Your task to perform on an android device: check battery use Image 0: 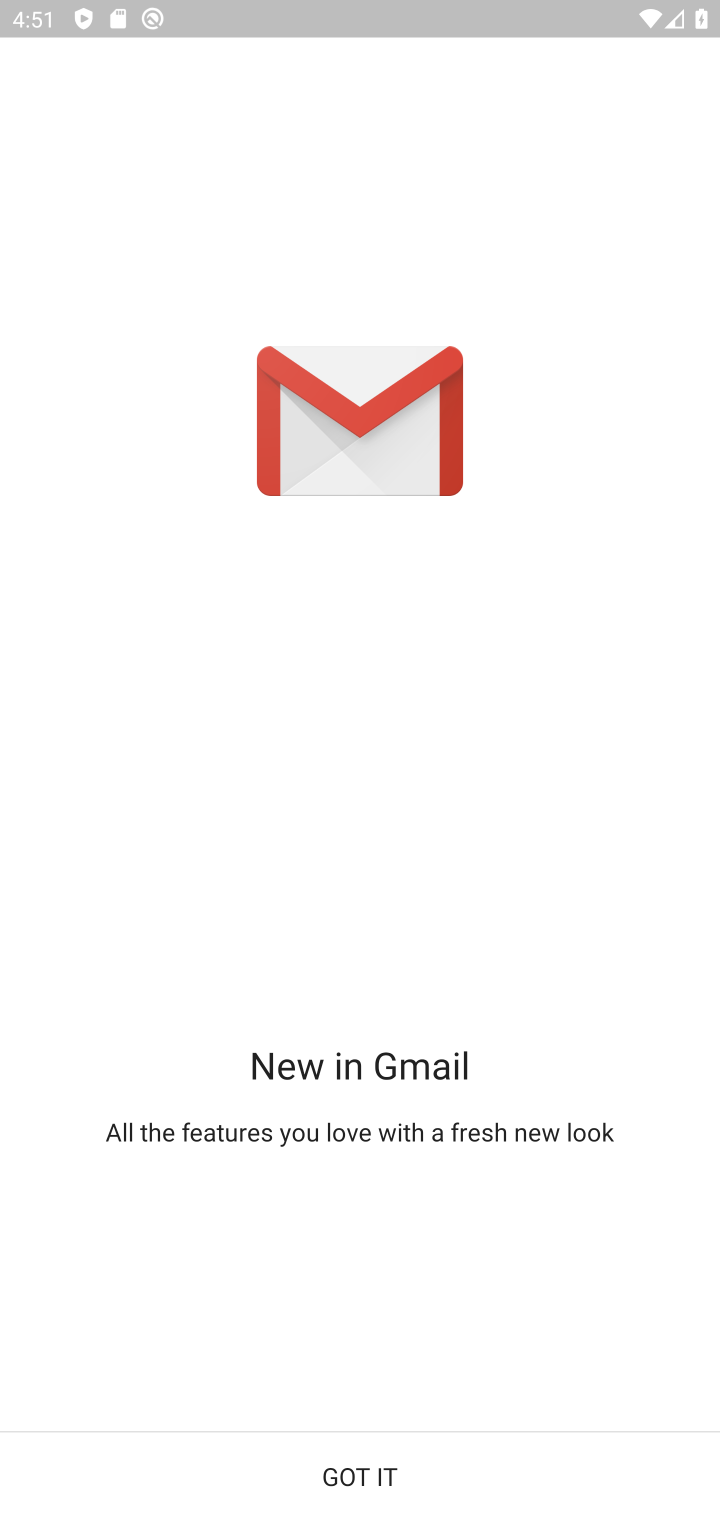
Step 0: press back button
Your task to perform on an android device: check battery use Image 1: 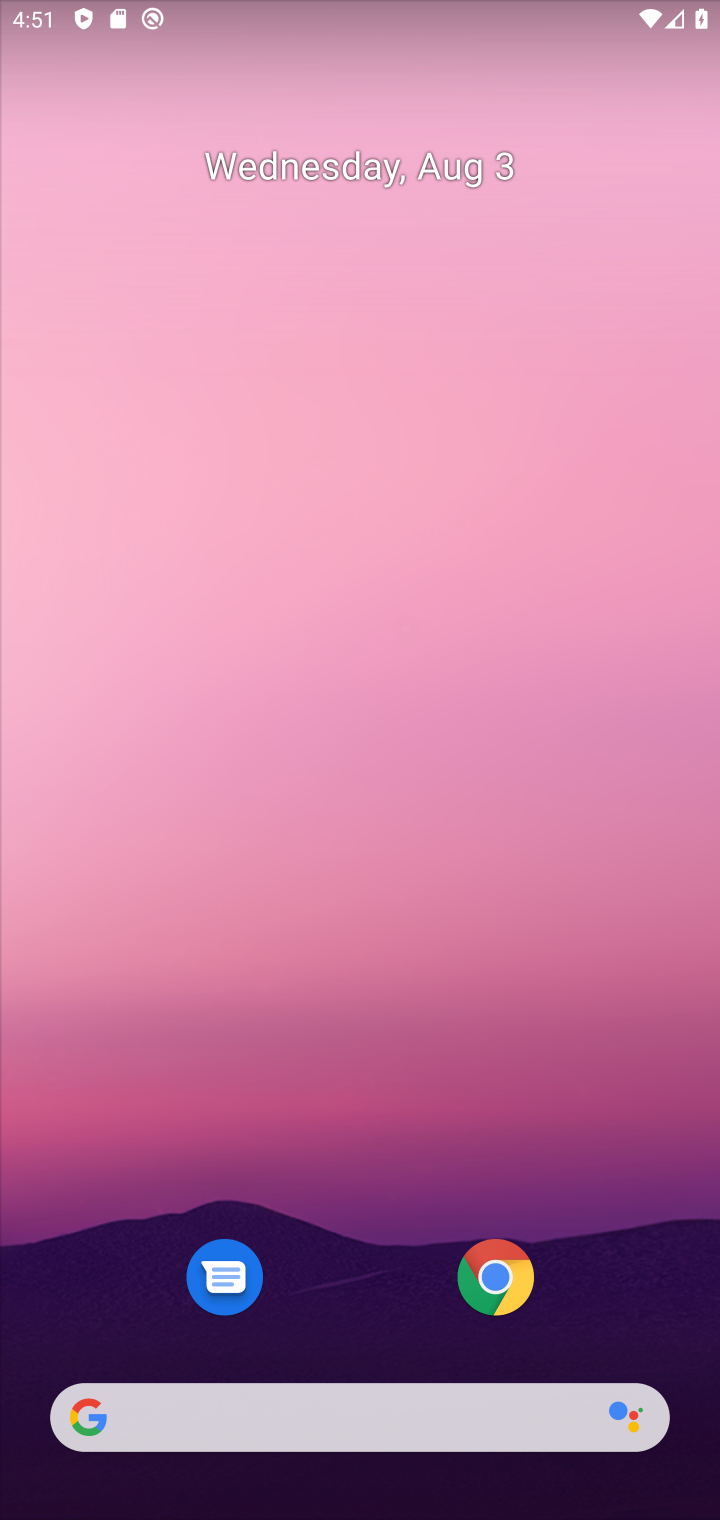
Step 1: drag from (109, 1265) to (269, 117)
Your task to perform on an android device: check battery use Image 2: 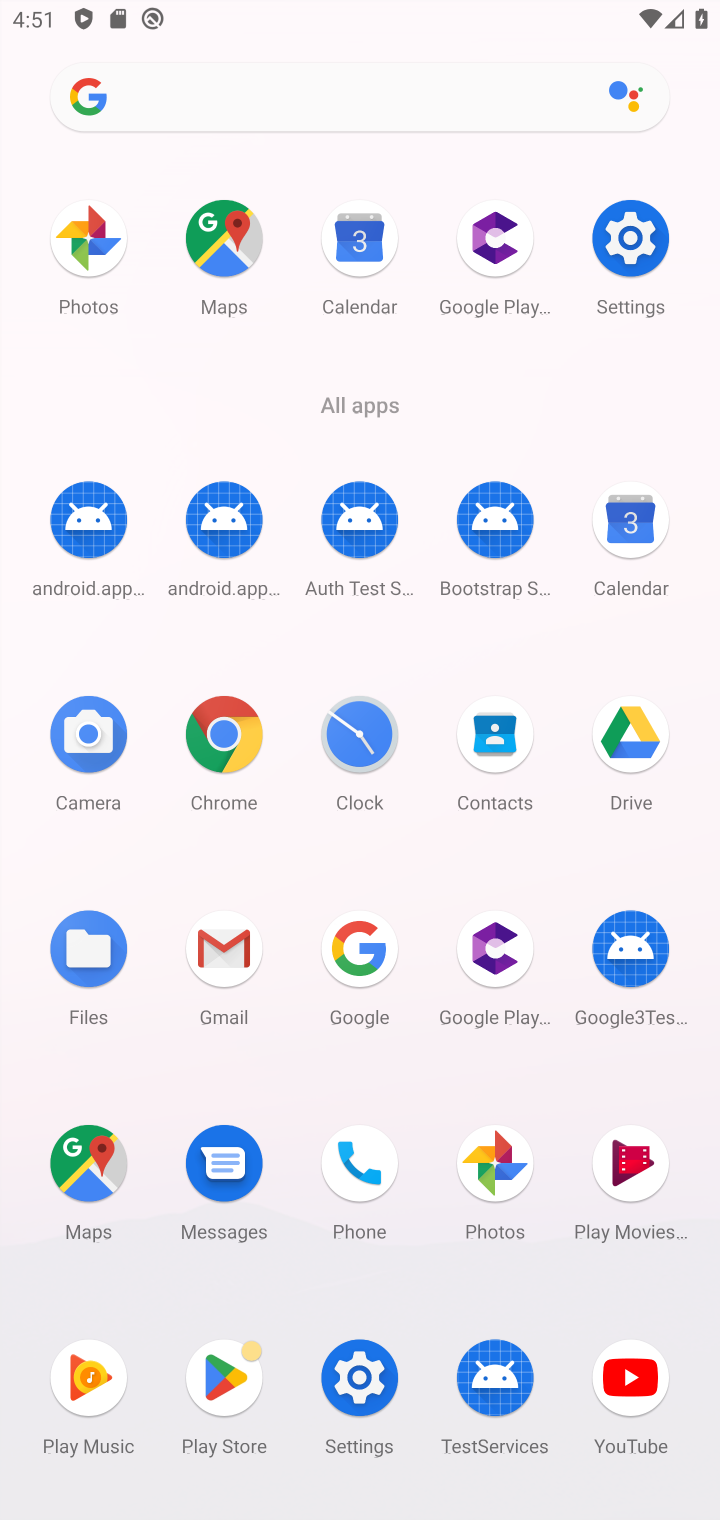
Step 2: click (655, 236)
Your task to perform on an android device: check battery use Image 3: 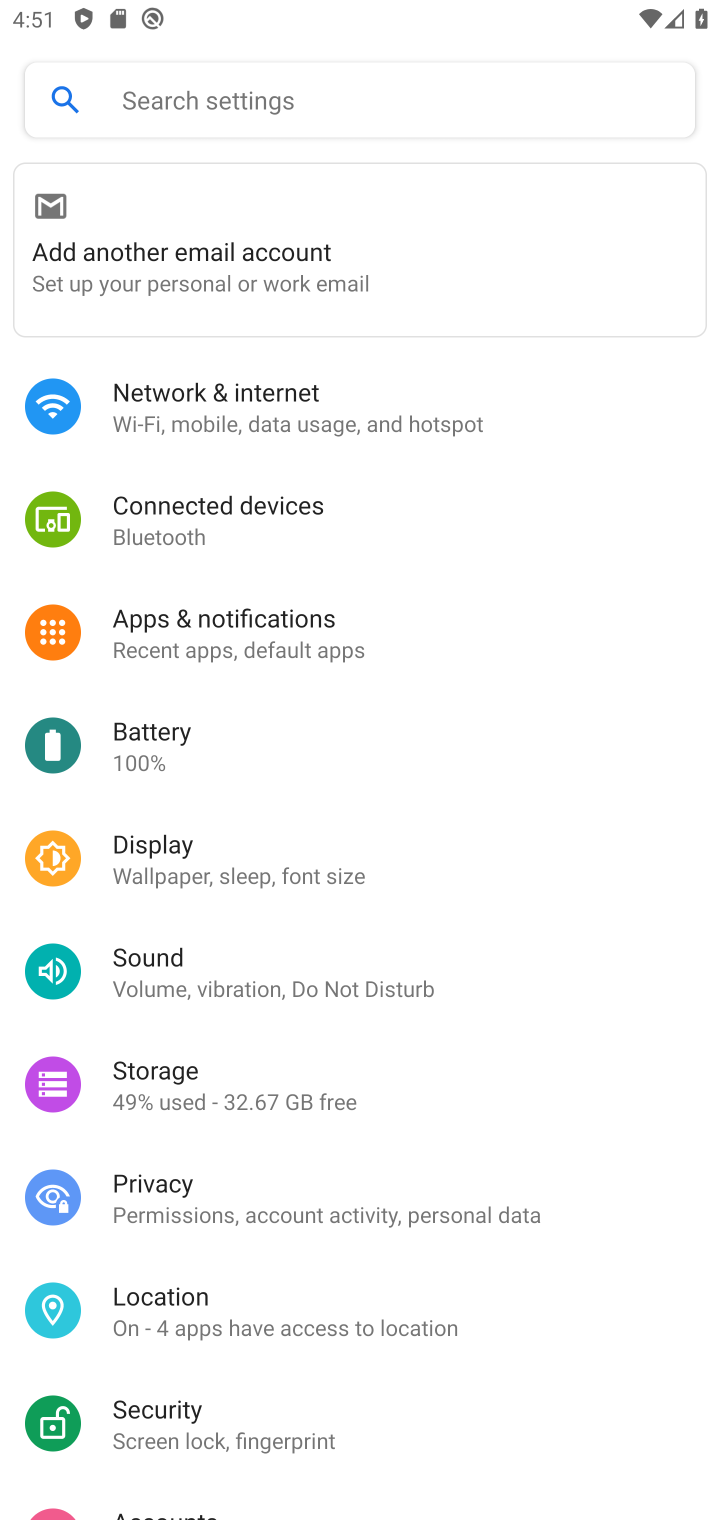
Step 3: click (208, 753)
Your task to perform on an android device: check battery use Image 4: 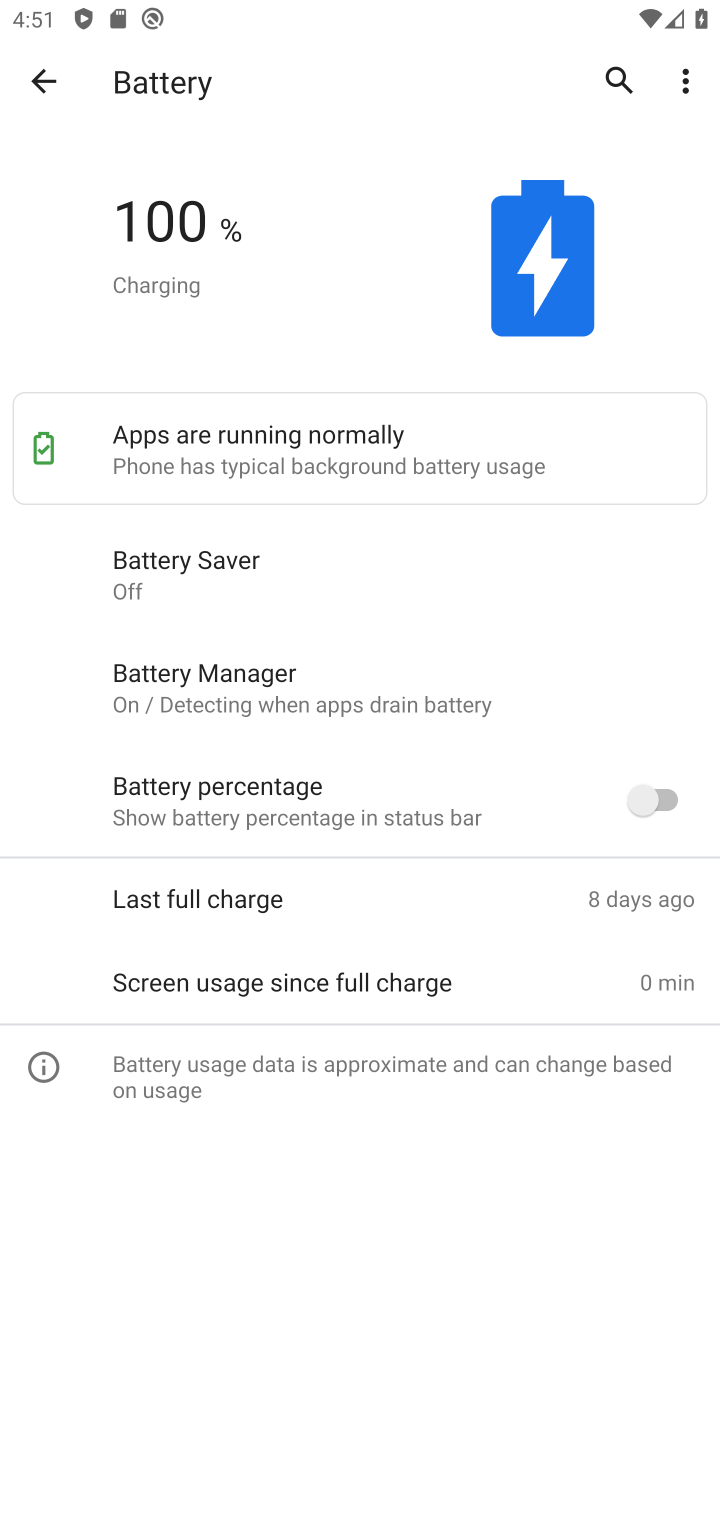
Step 4: click (686, 75)
Your task to perform on an android device: check battery use Image 5: 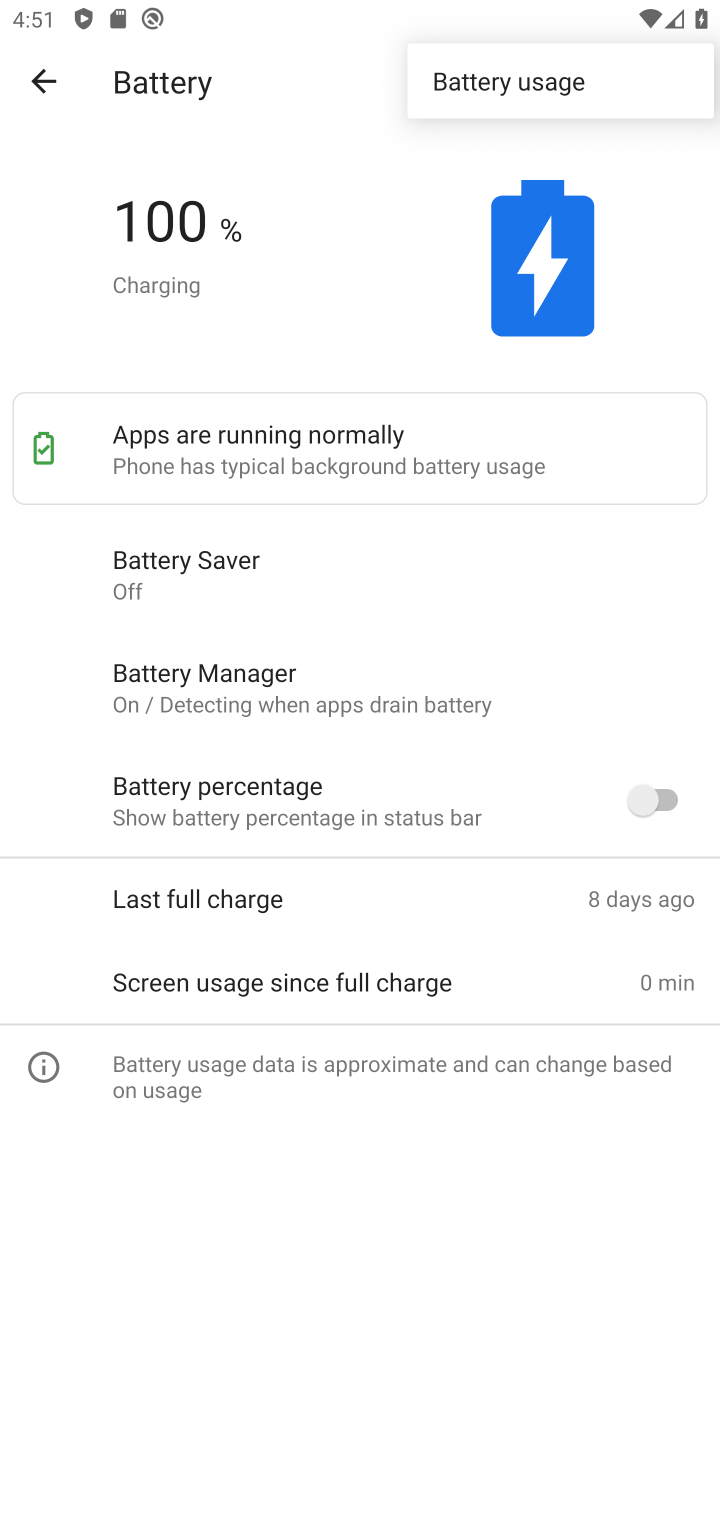
Step 5: click (582, 87)
Your task to perform on an android device: check battery use Image 6: 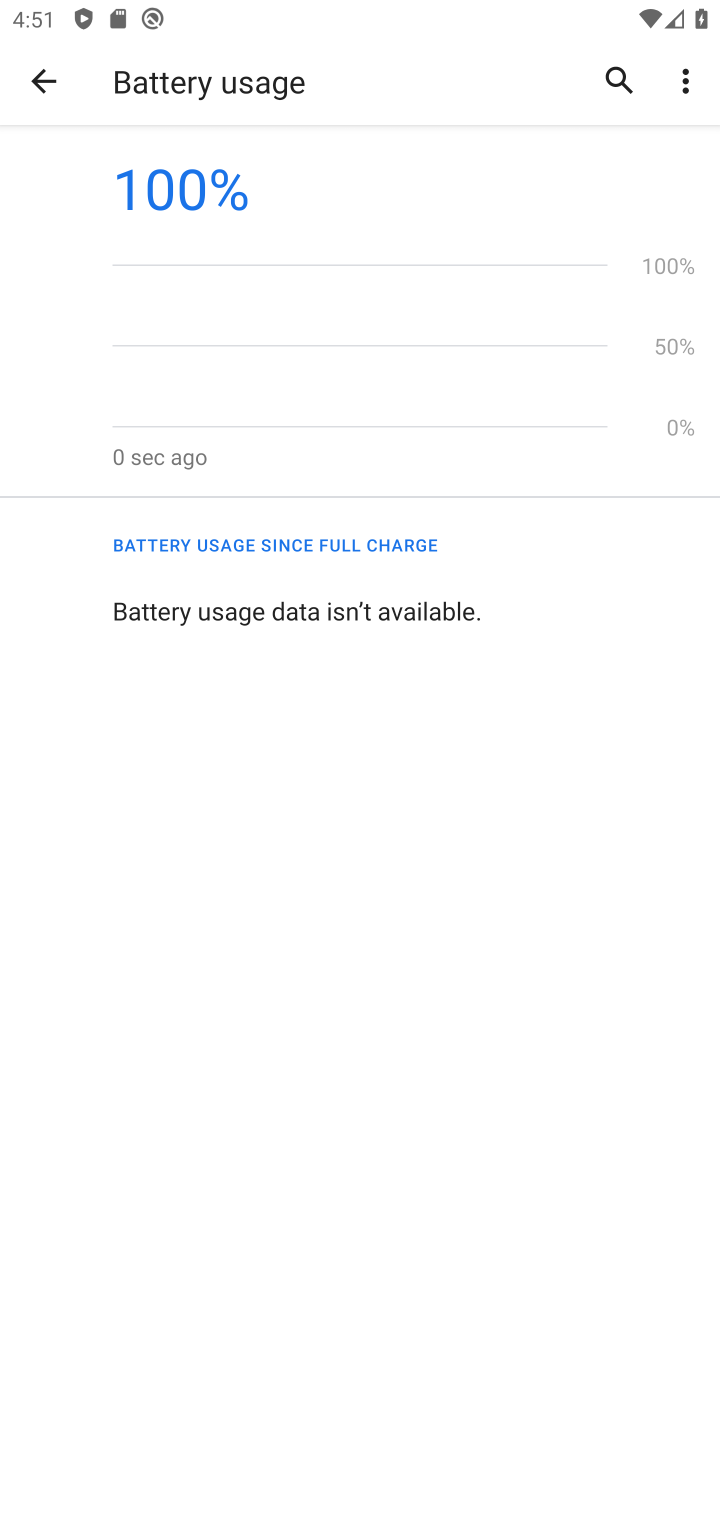
Step 6: task complete